Your task to perform on an android device: open sync settings in chrome Image 0: 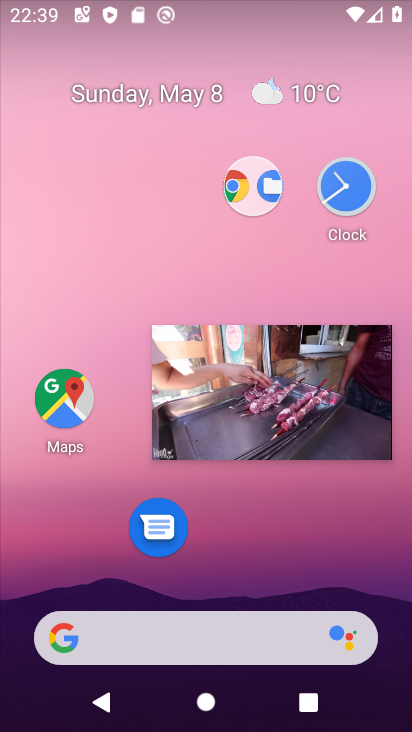
Step 0: drag from (298, 529) to (326, 52)
Your task to perform on an android device: open sync settings in chrome Image 1: 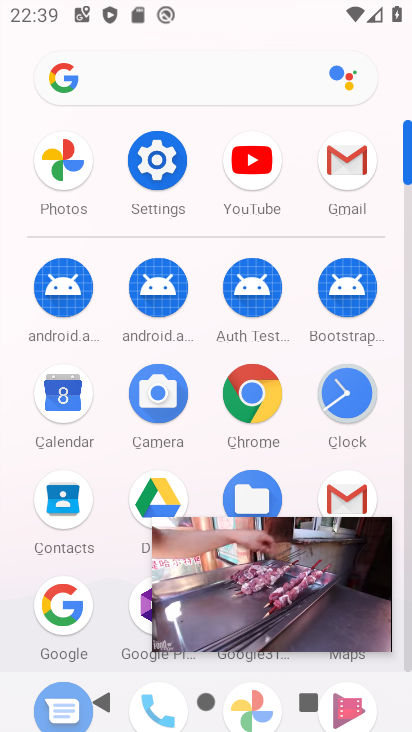
Step 1: click (249, 405)
Your task to perform on an android device: open sync settings in chrome Image 2: 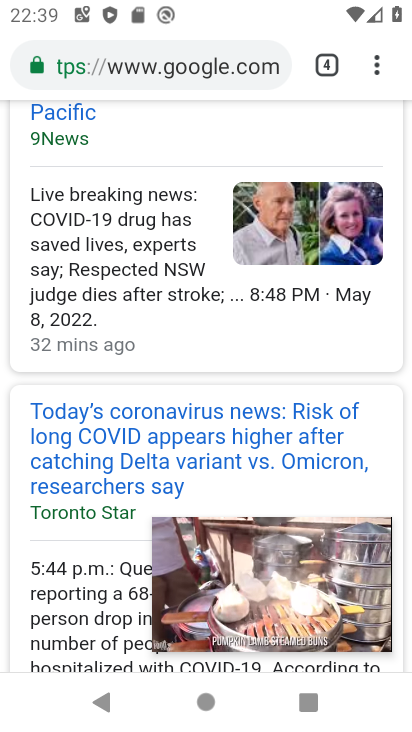
Step 2: click (381, 59)
Your task to perform on an android device: open sync settings in chrome Image 3: 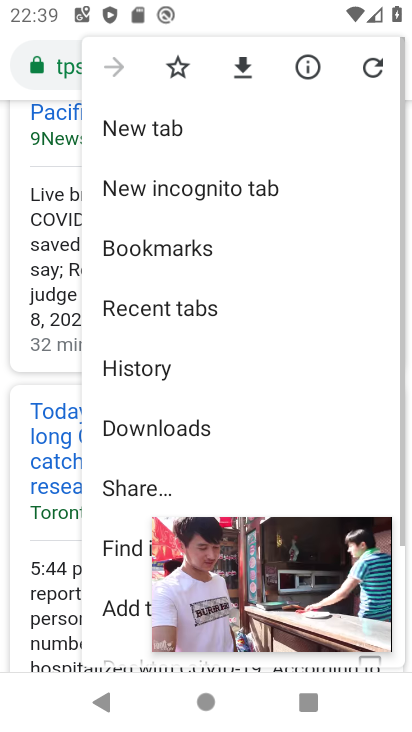
Step 3: drag from (141, 475) to (164, 160)
Your task to perform on an android device: open sync settings in chrome Image 4: 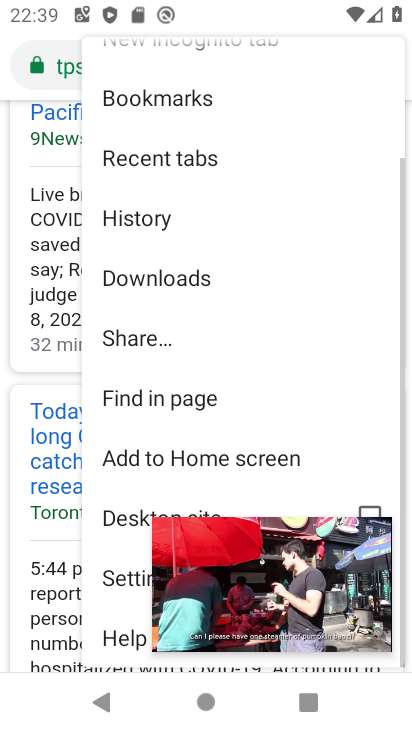
Step 4: click (109, 579)
Your task to perform on an android device: open sync settings in chrome Image 5: 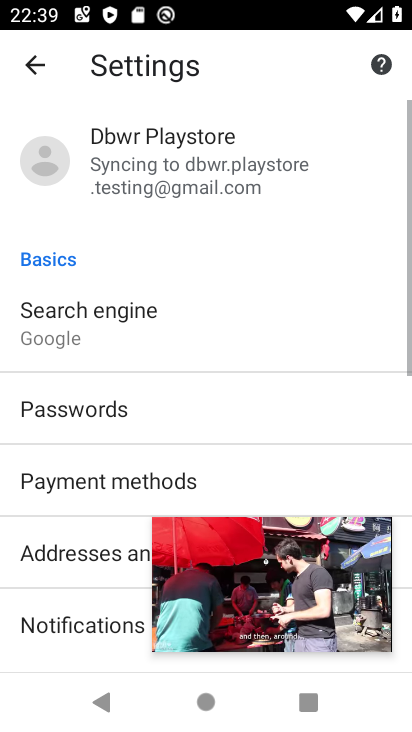
Step 5: click (205, 182)
Your task to perform on an android device: open sync settings in chrome Image 6: 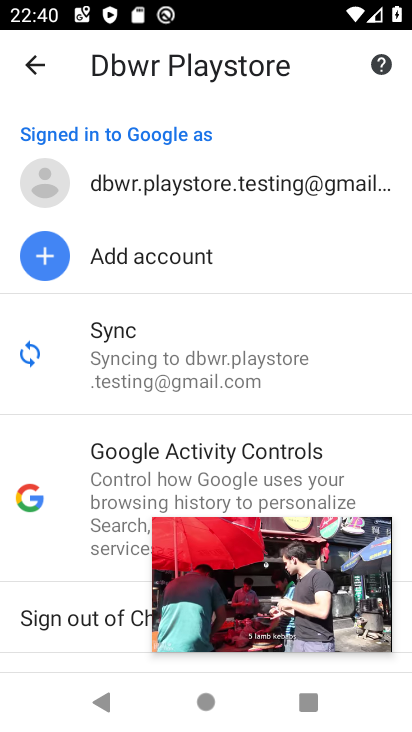
Step 6: click (178, 356)
Your task to perform on an android device: open sync settings in chrome Image 7: 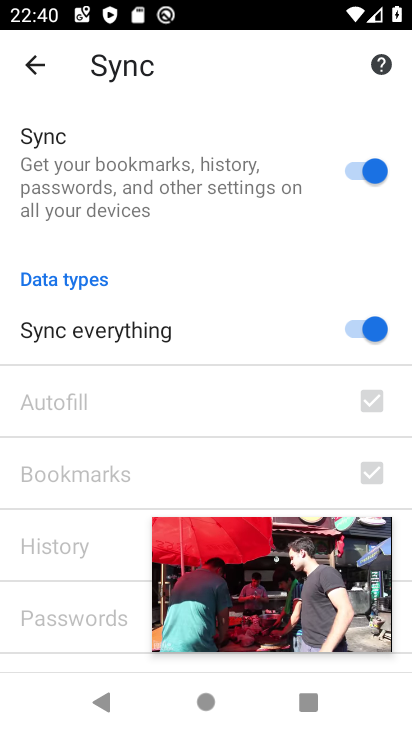
Step 7: task complete